Your task to perform on an android device: Open the map Image 0: 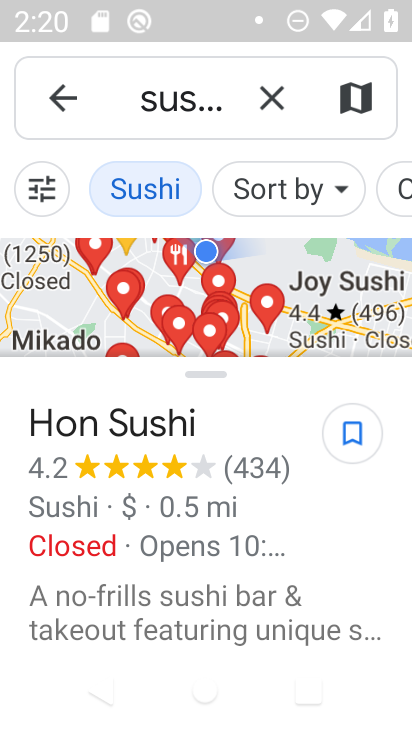
Step 0: task complete